Your task to perform on an android device: turn off location history Image 0: 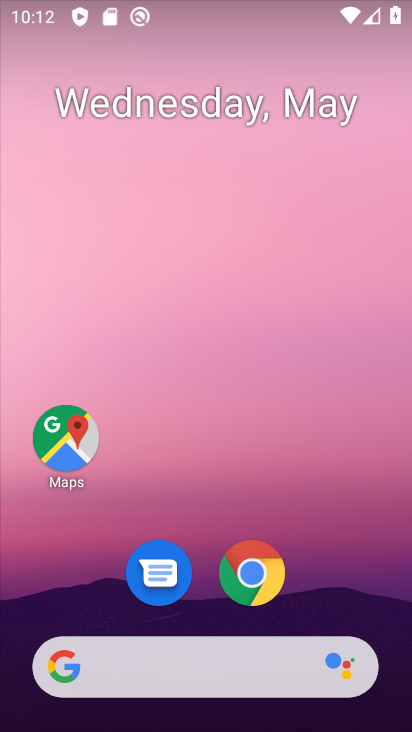
Step 0: drag from (329, 564) to (235, 167)
Your task to perform on an android device: turn off location history Image 1: 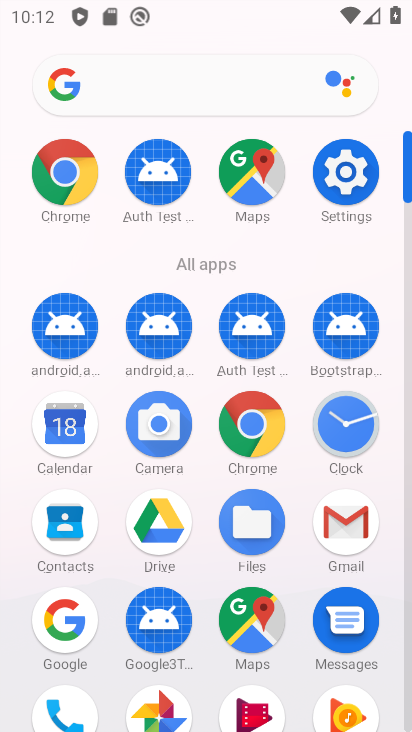
Step 1: click (236, 163)
Your task to perform on an android device: turn off location history Image 2: 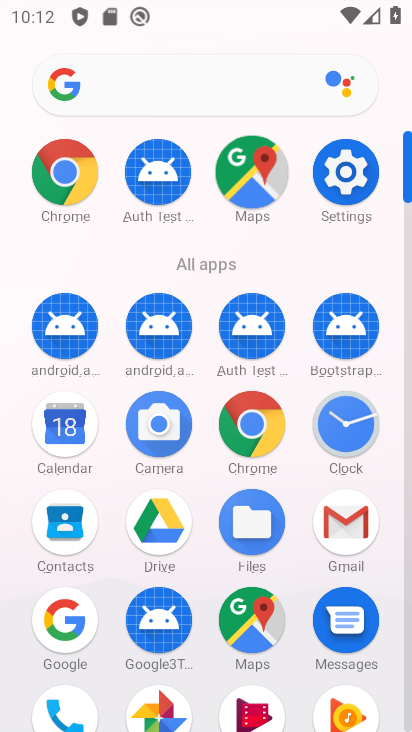
Step 2: click (235, 164)
Your task to perform on an android device: turn off location history Image 3: 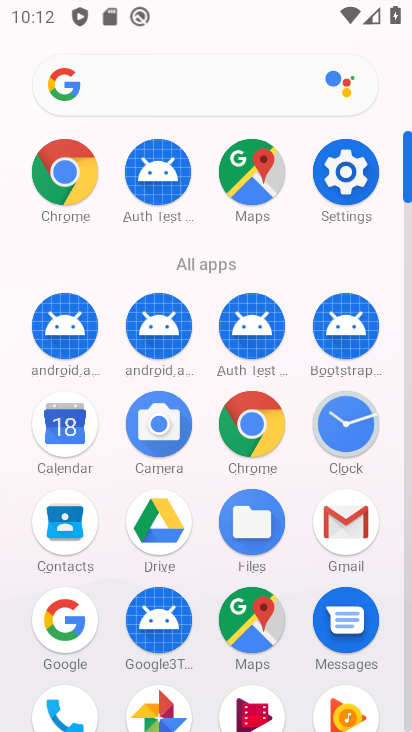
Step 3: click (239, 167)
Your task to perform on an android device: turn off location history Image 4: 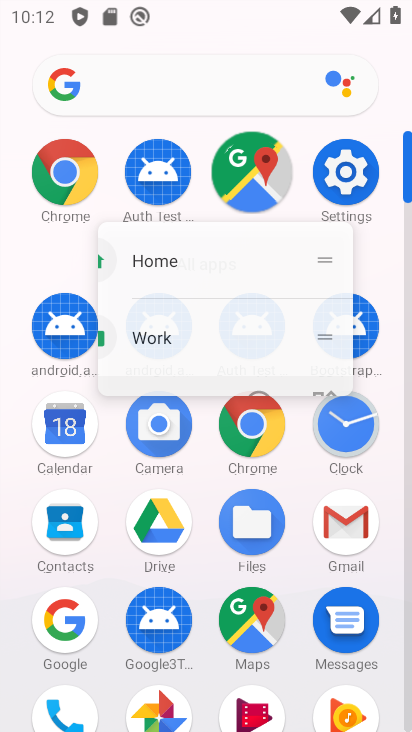
Step 4: click (240, 166)
Your task to perform on an android device: turn off location history Image 5: 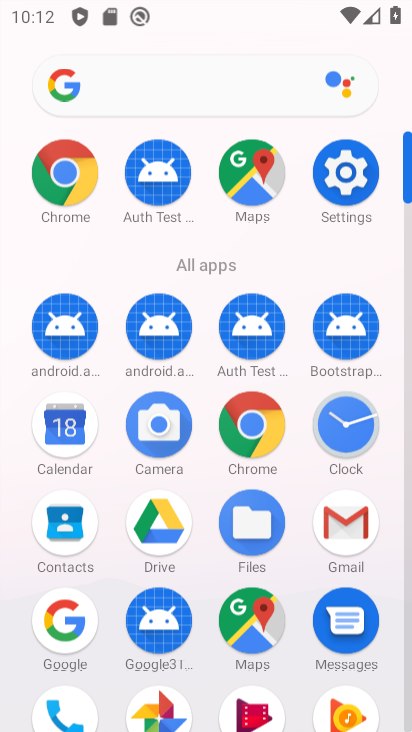
Step 5: click (249, 180)
Your task to perform on an android device: turn off location history Image 6: 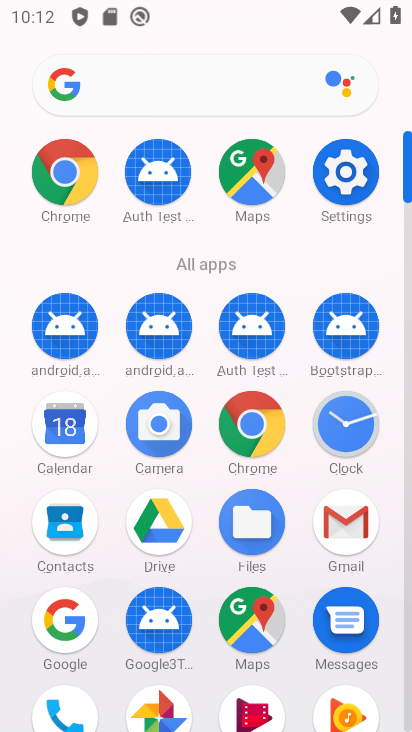
Step 6: click (249, 180)
Your task to perform on an android device: turn off location history Image 7: 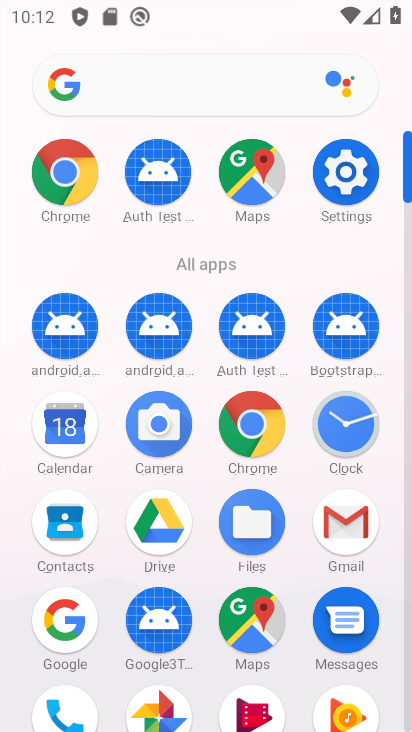
Step 7: click (249, 181)
Your task to perform on an android device: turn off location history Image 8: 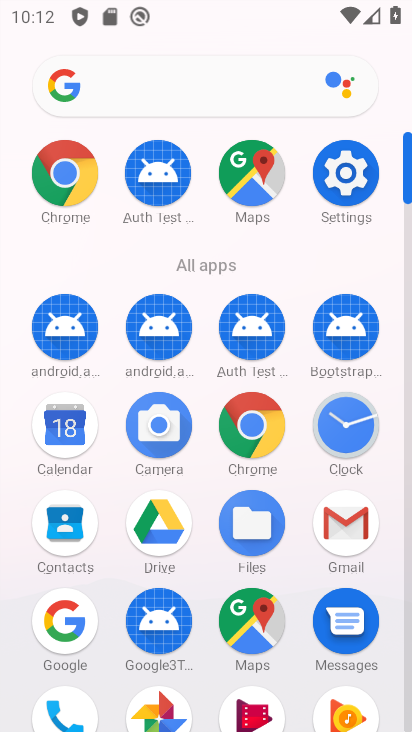
Step 8: click (251, 183)
Your task to perform on an android device: turn off location history Image 9: 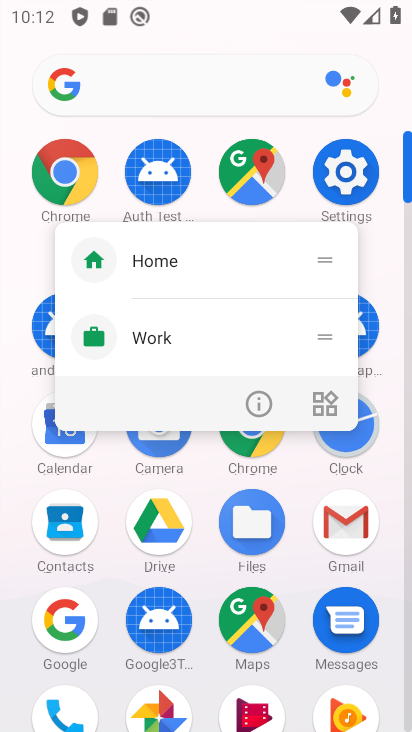
Step 9: click (259, 171)
Your task to perform on an android device: turn off location history Image 10: 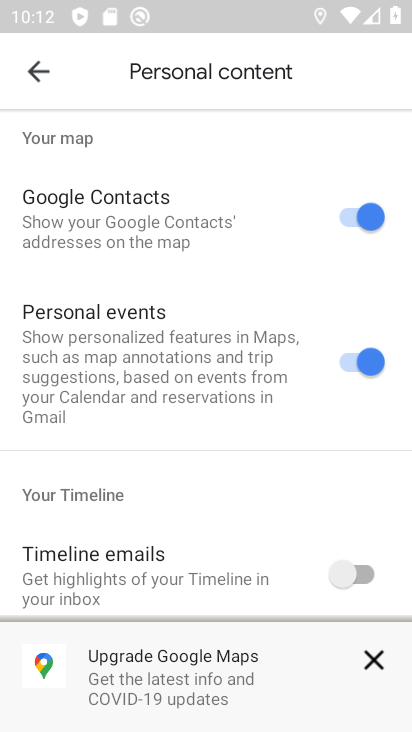
Step 10: click (36, 70)
Your task to perform on an android device: turn off location history Image 11: 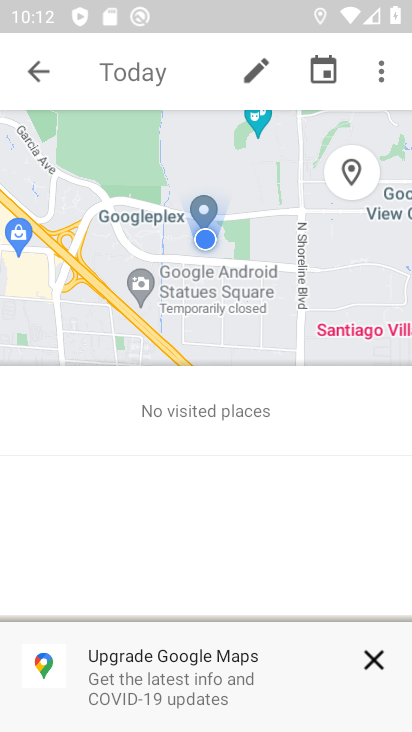
Step 11: click (375, 78)
Your task to perform on an android device: turn off location history Image 12: 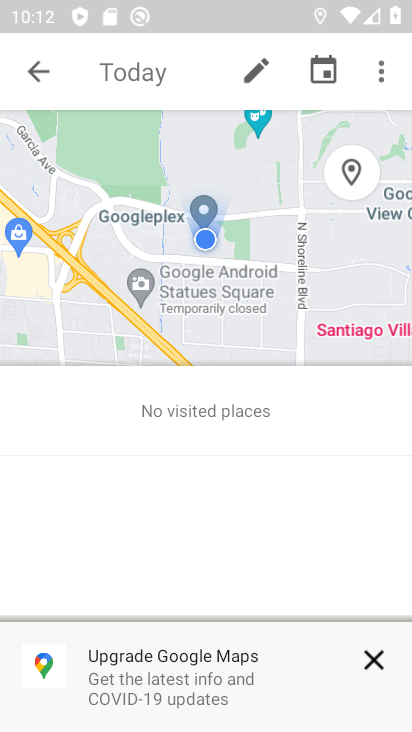
Step 12: click (376, 77)
Your task to perform on an android device: turn off location history Image 13: 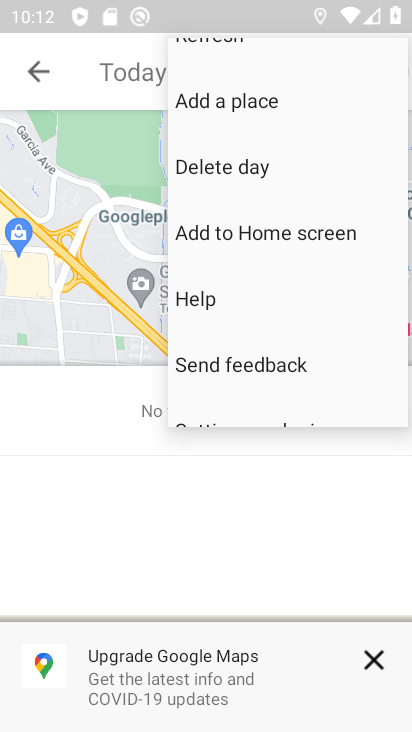
Step 13: click (376, 77)
Your task to perform on an android device: turn off location history Image 14: 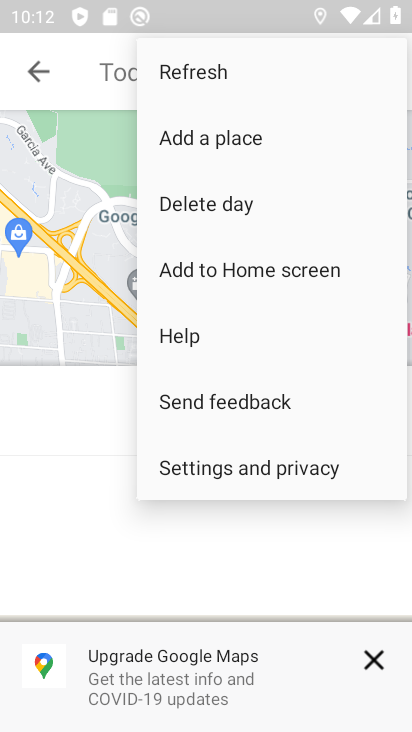
Step 14: click (253, 463)
Your task to perform on an android device: turn off location history Image 15: 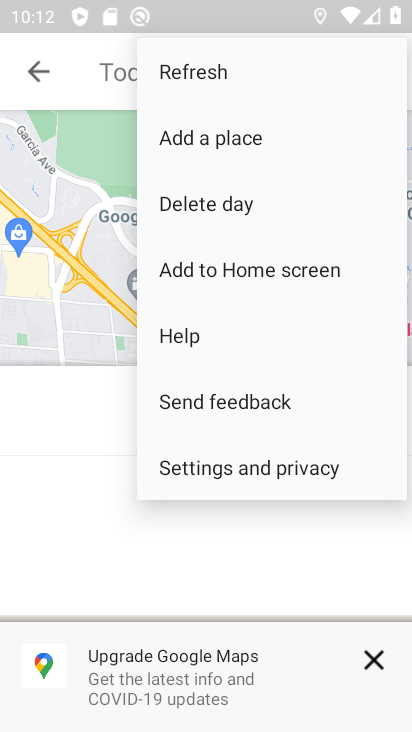
Step 15: click (253, 463)
Your task to perform on an android device: turn off location history Image 16: 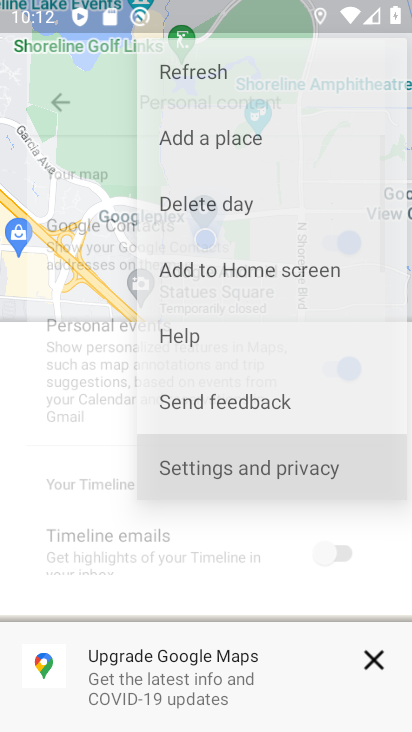
Step 16: click (253, 463)
Your task to perform on an android device: turn off location history Image 17: 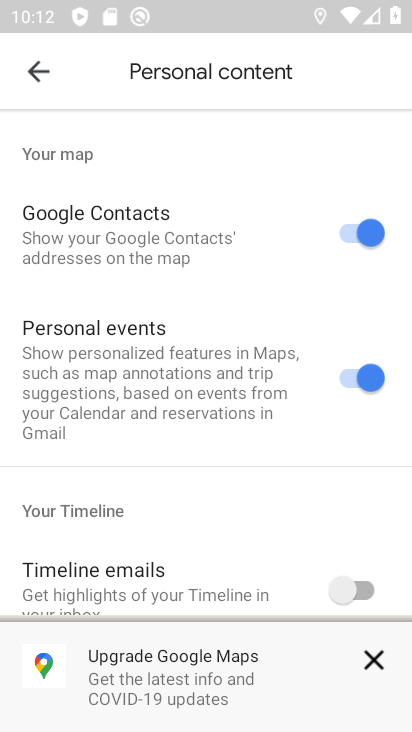
Step 17: drag from (197, 385) to (166, 179)
Your task to perform on an android device: turn off location history Image 18: 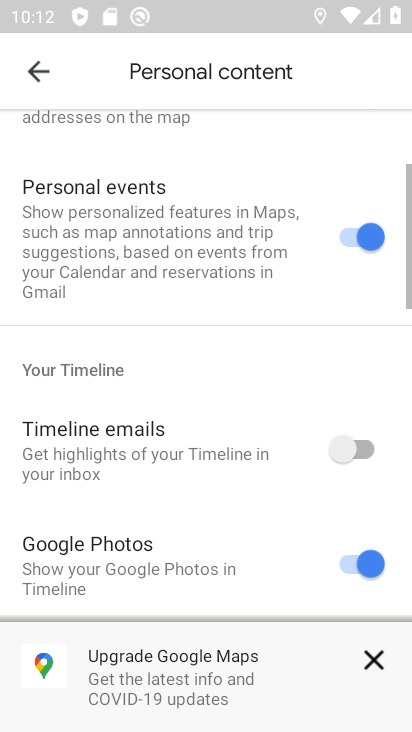
Step 18: drag from (180, 434) to (178, 191)
Your task to perform on an android device: turn off location history Image 19: 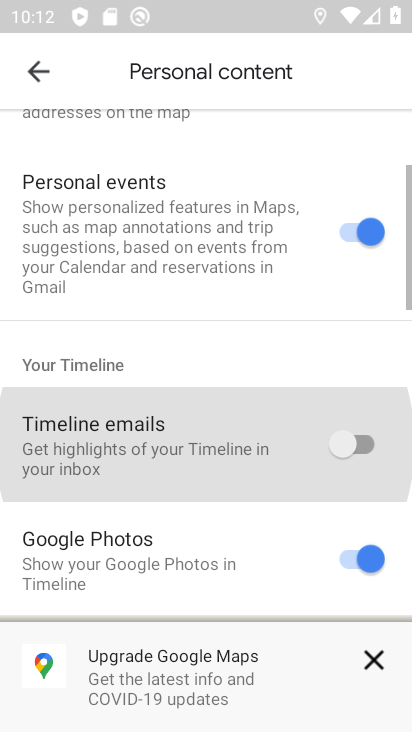
Step 19: drag from (217, 544) to (191, 130)
Your task to perform on an android device: turn off location history Image 20: 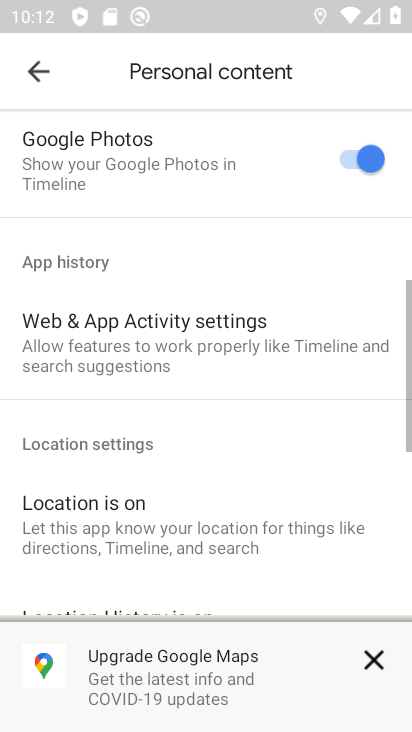
Step 20: drag from (219, 485) to (207, 51)
Your task to perform on an android device: turn off location history Image 21: 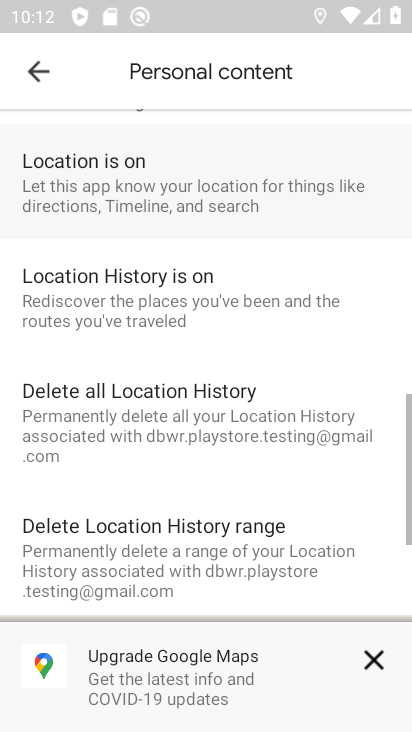
Step 21: drag from (158, 382) to (258, 34)
Your task to perform on an android device: turn off location history Image 22: 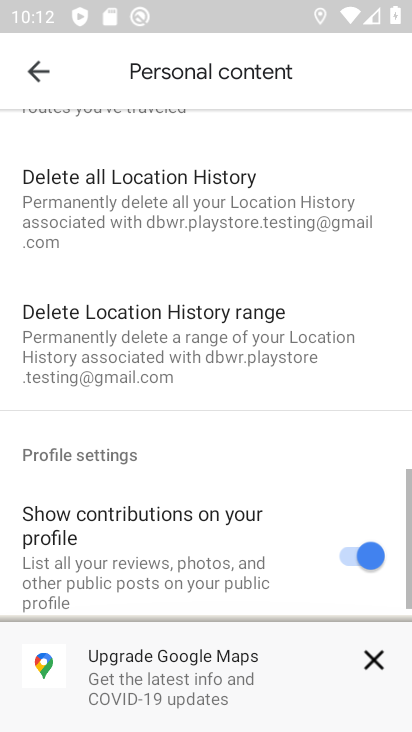
Step 22: drag from (190, 405) to (243, 0)
Your task to perform on an android device: turn off location history Image 23: 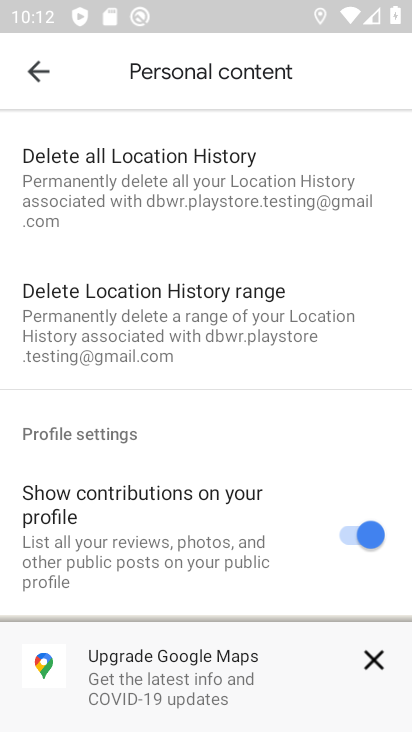
Step 23: drag from (108, 215) to (174, 436)
Your task to perform on an android device: turn off location history Image 24: 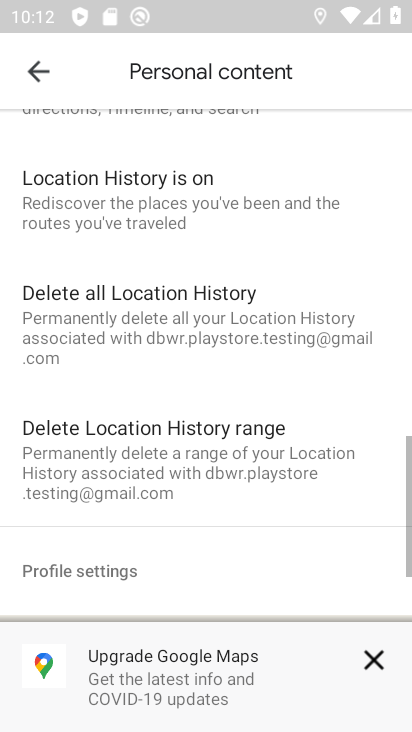
Step 24: drag from (120, 188) to (213, 501)
Your task to perform on an android device: turn off location history Image 25: 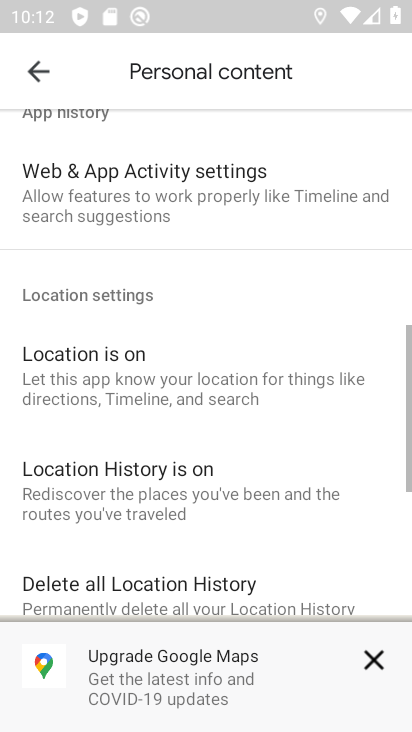
Step 25: drag from (182, 275) to (245, 636)
Your task to perform on an android device: turn off location history Image 26: 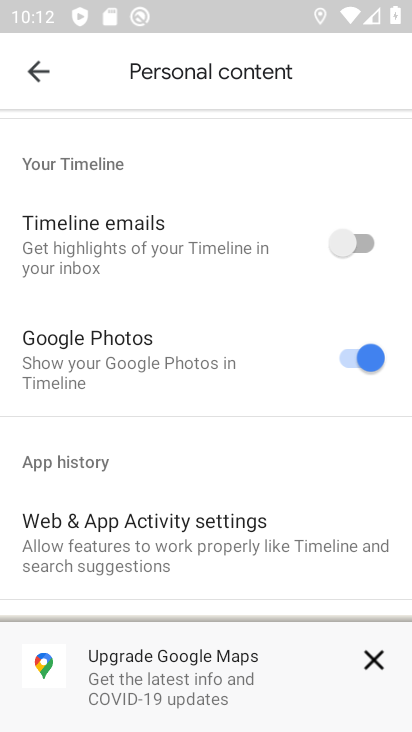
Step 26: drag from (182, 488) to (130, 89)
Your task to perform on an android device: turn off location history Image 27: 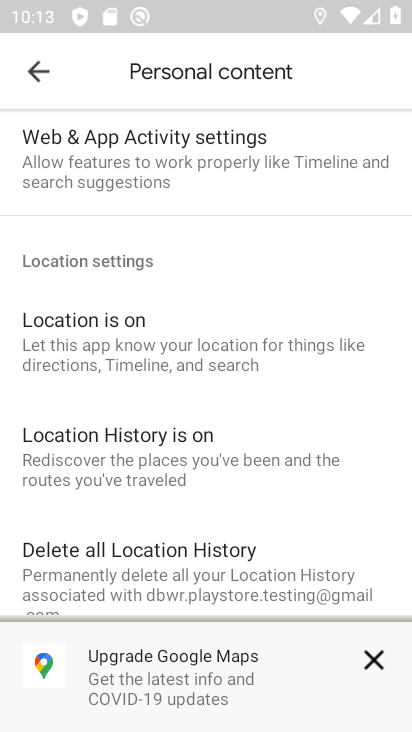
Step 27: click (126, 452)
Your task to perform on an android device: turn off location history Image 28: 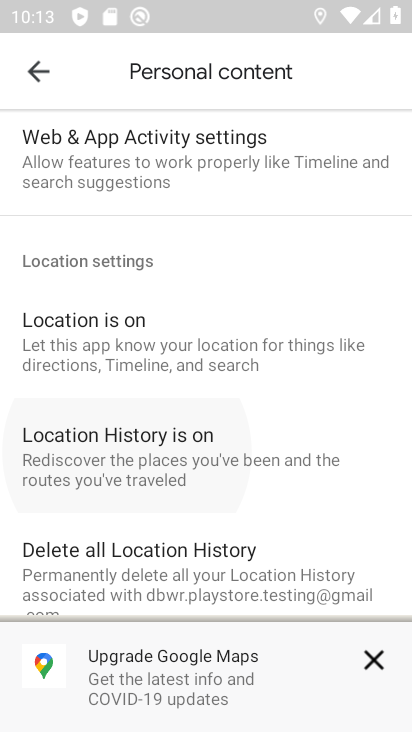
Step 28: click (126, 452)
Your task to perform on an android device: turn off location history Image 29: 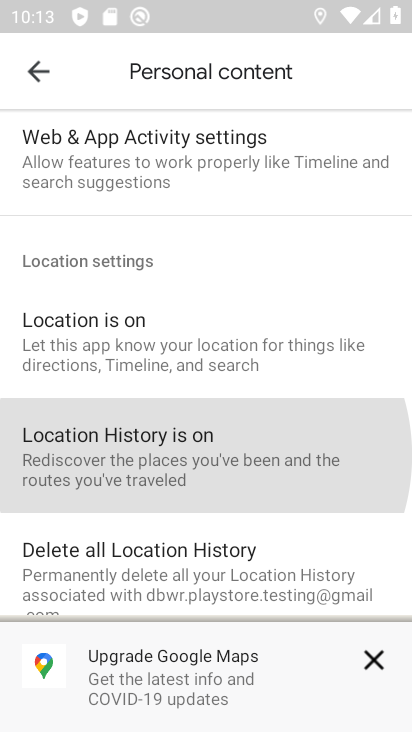
Step 29: click (126, 452)
Your task to perform on an android device: turn off location history Image 30: 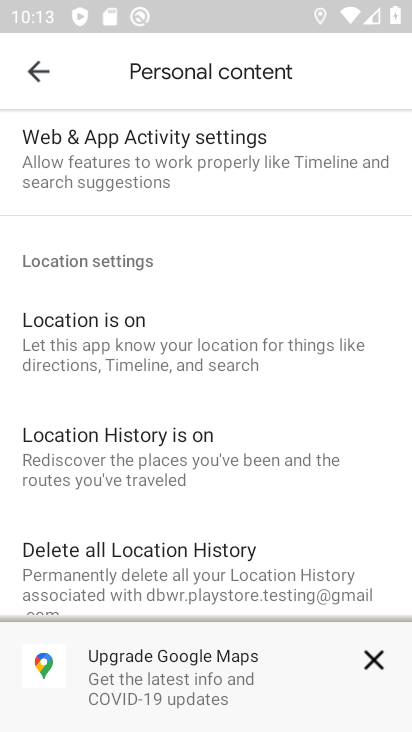
Step 30: click (126, 452)
Your task to perform on an android device: turn off location history Image 31: 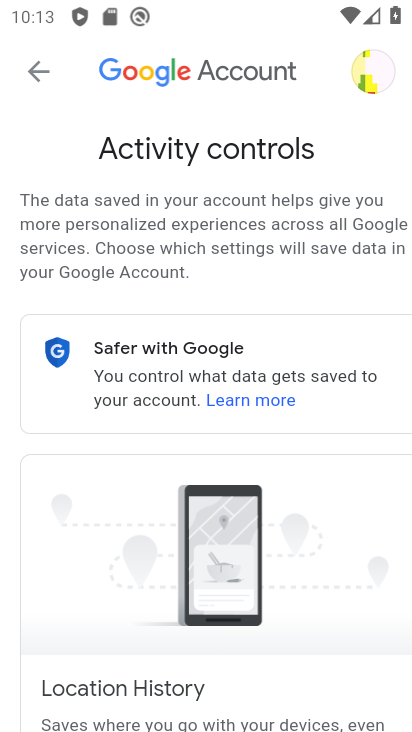
Step 31: drag from (249, 624) to (258, 218)
Your task to perform on an android device: turn off location history Image 32: 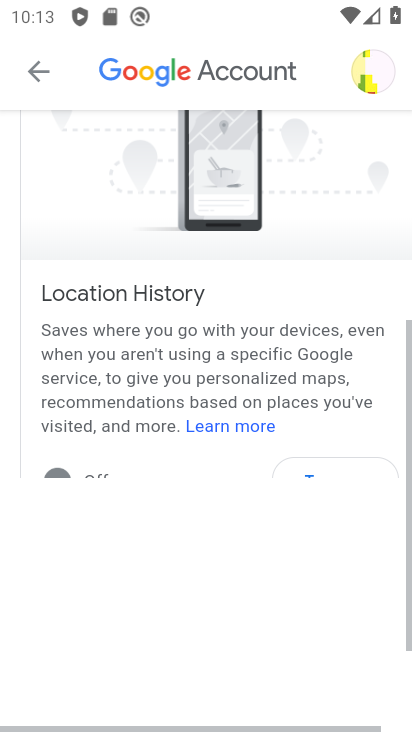
Step 32: drag from (235, 490) to (227, 259)
Your task to perform on an android device: turn off location history Image 33: 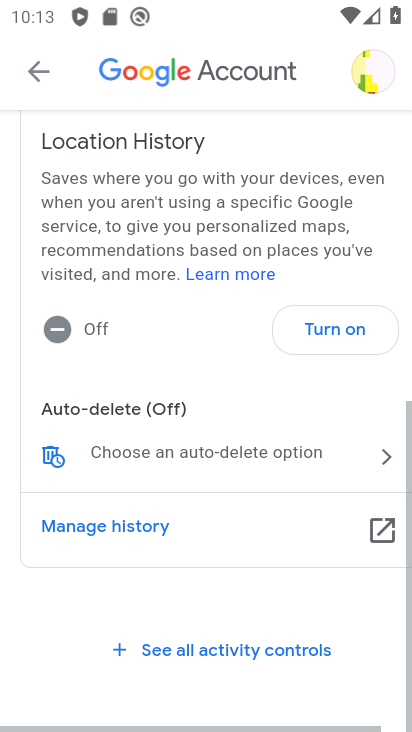
Step 33: drag from (227, 507) to (221, 220)
Your task to perform on an android device: turn off location history Image 34: 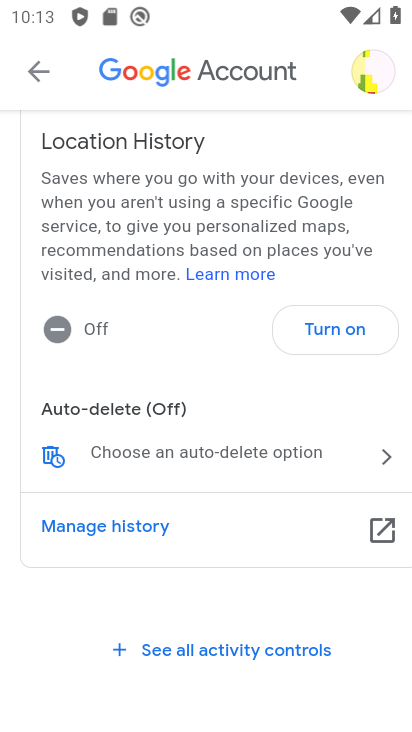
Step 34: click (322, 329)
Your task to perform on an android device: turn off location history Image 35: 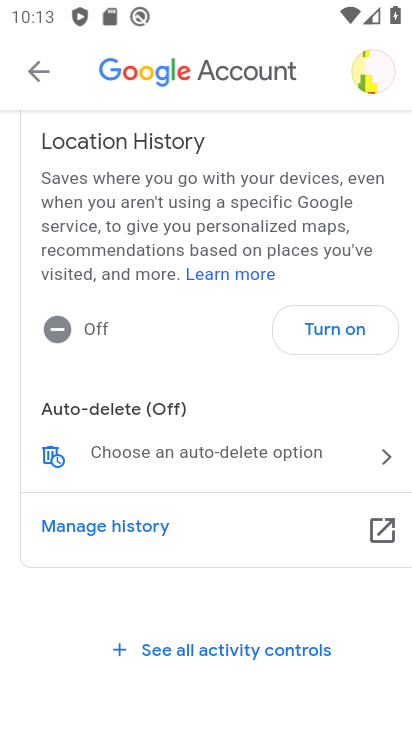
Step 35: click (322, 329)
Your task to perform on an android device: turn off location history Image 36: 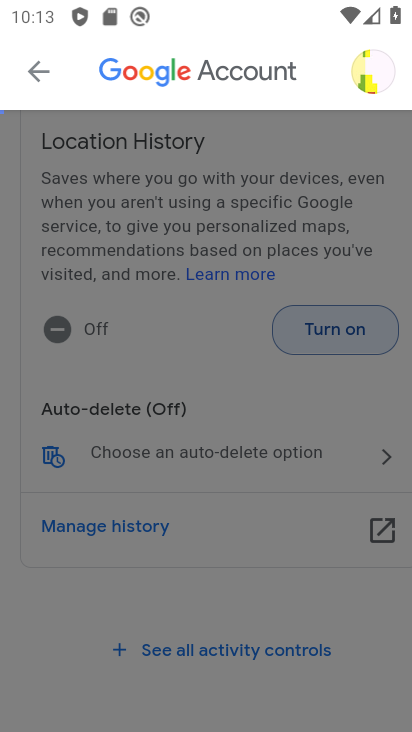
Step 36: click (323, 328)
Your task to perform on an android device: turn off location history Image 37: 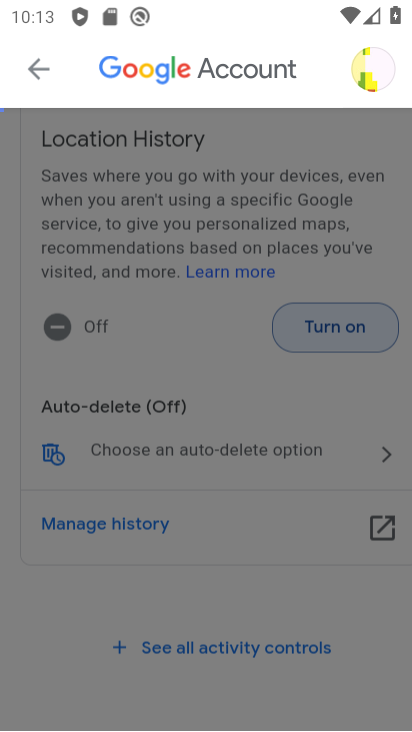
Step 37: click (323, 328)
Your task to perform on an android device: turn off location history Image 38: 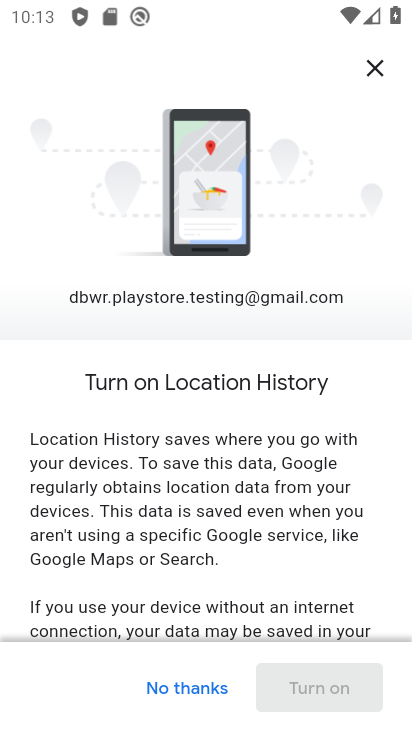
Step 38: drag from (227, 504) to (165, 103)
Your task to perform on an android device: turn off location history Image 39: 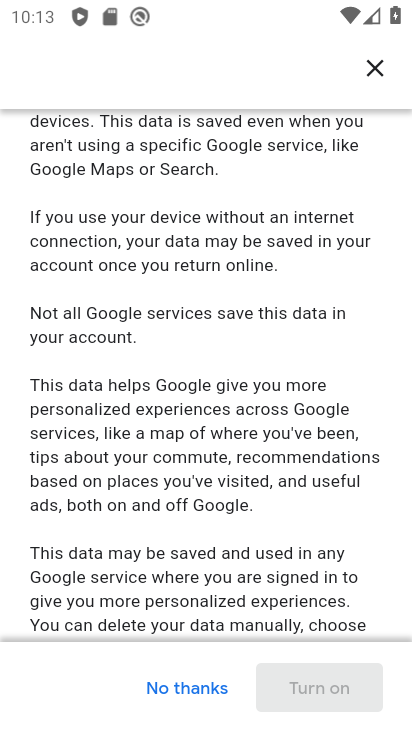
Step 39: drag from (220, 461) to (236, 89)
Your task to perform on an android device: turn off location history Image 40: 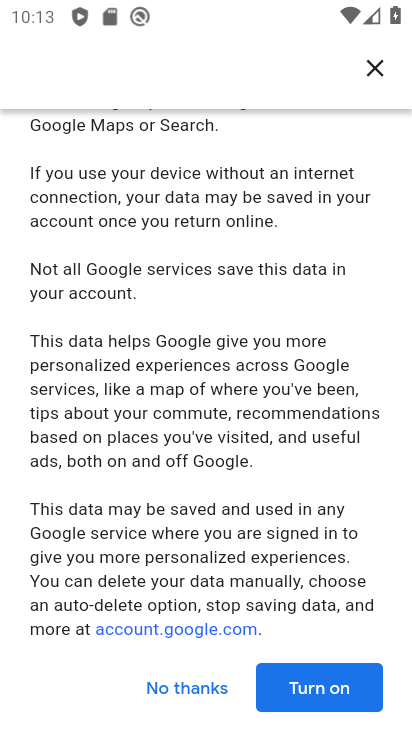
Step 40: drag from (211, 344) to (278, 70)
Your task to perform on an android device: turn off location history Image 41: 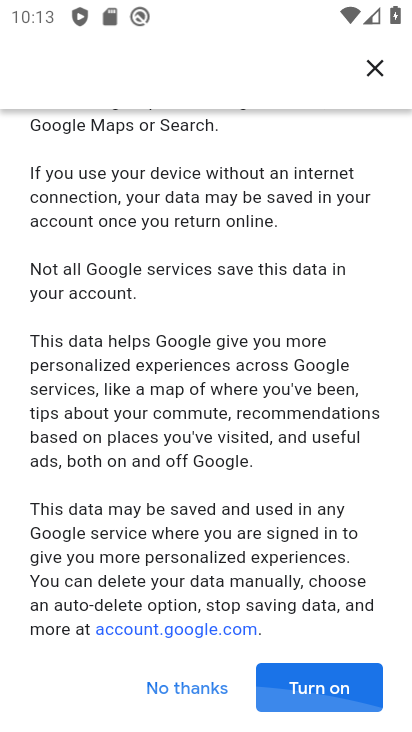
Step 41: drag from (270, 436) to (231, 68)
Your task to perform on an android device: turn off location history Image 42: 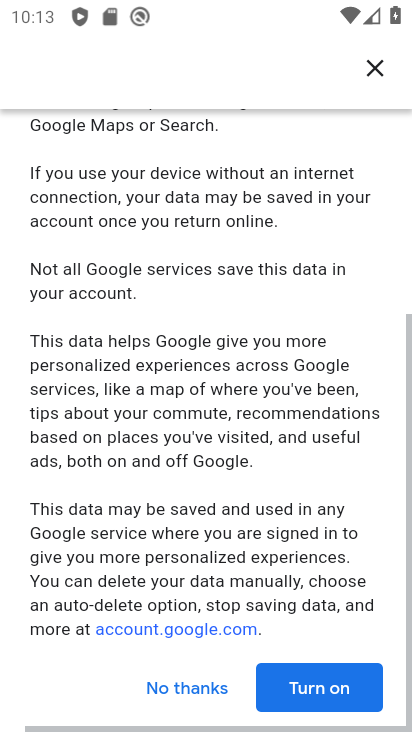
Step 42: drag from (252, 533) to (247, 349)
Your task to perform on an android device: turn off location history Image 43: 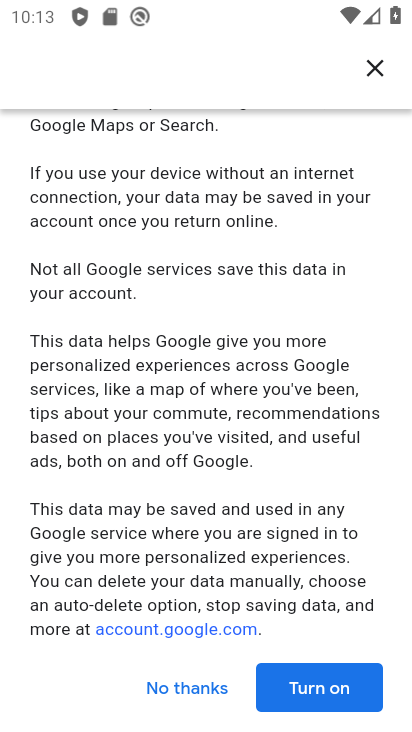
Step 43: click (323, 691)
Your task to perform on an android device: turn off location history Image 44: 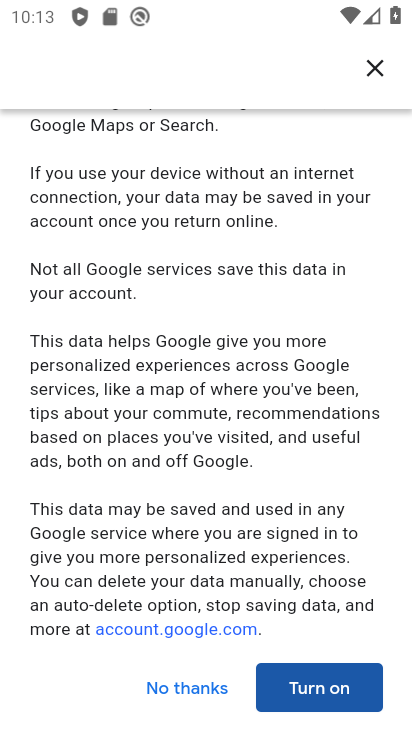
Step 44: click (325, 684)
Your task to perform on an android device: turn off location history Image 45: 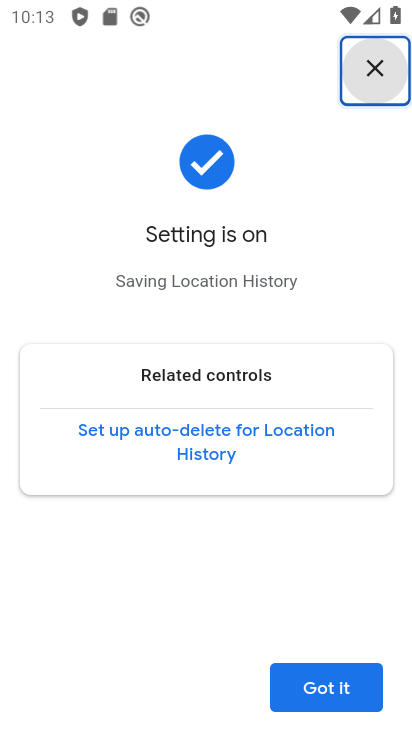
Step 45: click (372, 72)
Your task to perform on an android device: turn off location history Image 46: 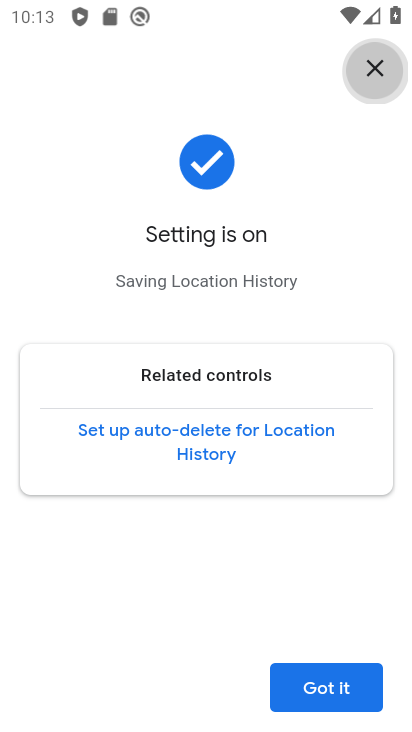
Step 46: click (374, 71)
Your task to perform on an android device: turn off location history Image 47: 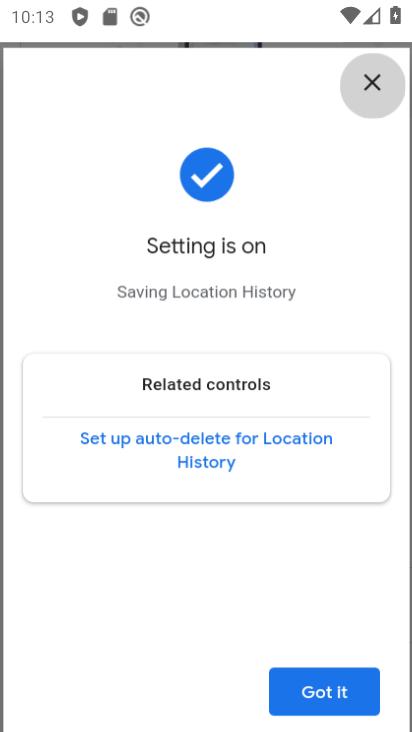
Step 47: click (376, 71)
Your task to perform on an android device: turn off location history Image 48: 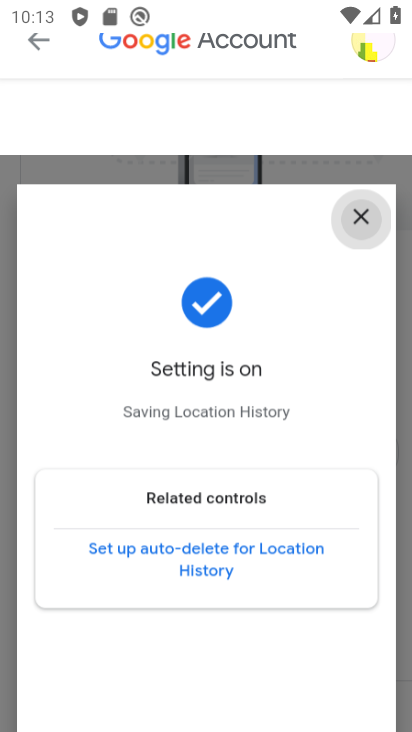
Step 48: click (376, 71)
Your task to perform on an android device: turn off location history Image 49: 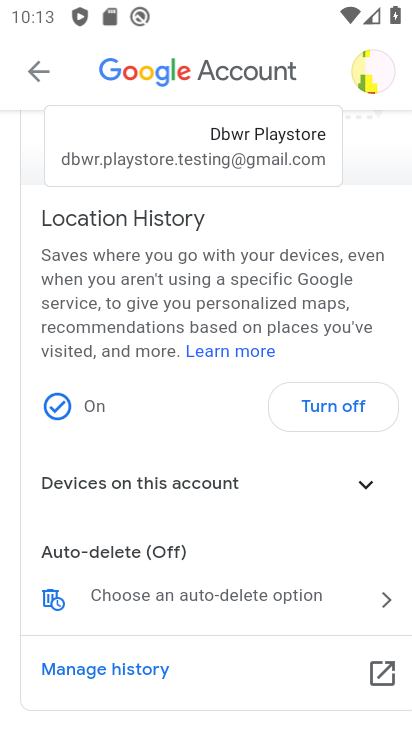
Step 49: task complete